Your task to perform on an android device: Open the calendar app, open the side menu, and click the "Day" option Image 0: 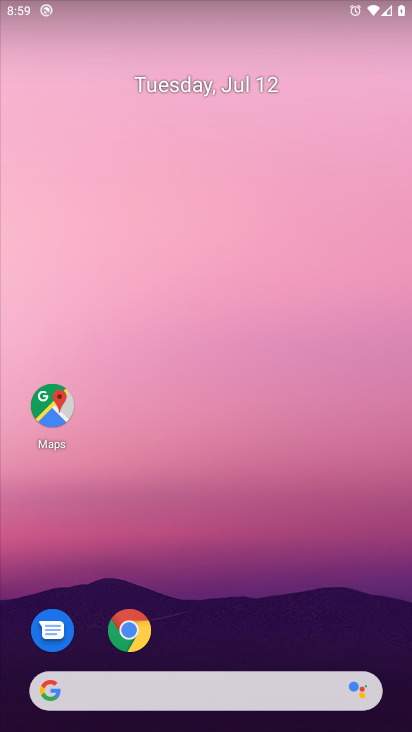
Step 0: press home button
Your task to perform on an android device: Open the calendar app, open the side menu, and click the "Day" option Image 1: 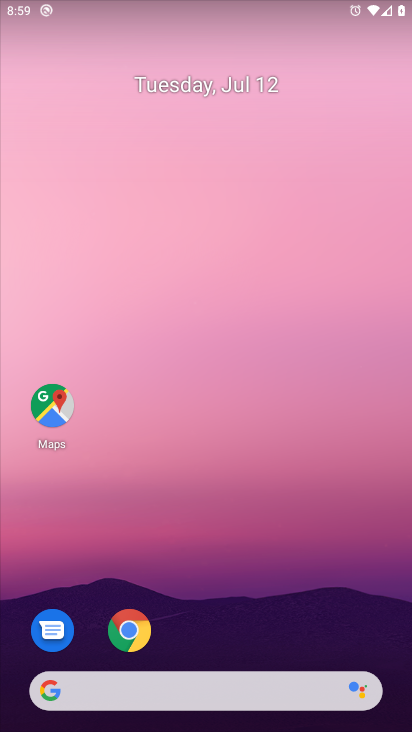
Step 1: drag from (229, 651) to (178, 183)
Your task to perform on an android device: Open the calendar app, open the side menu, and click the "Day" option Image 2: 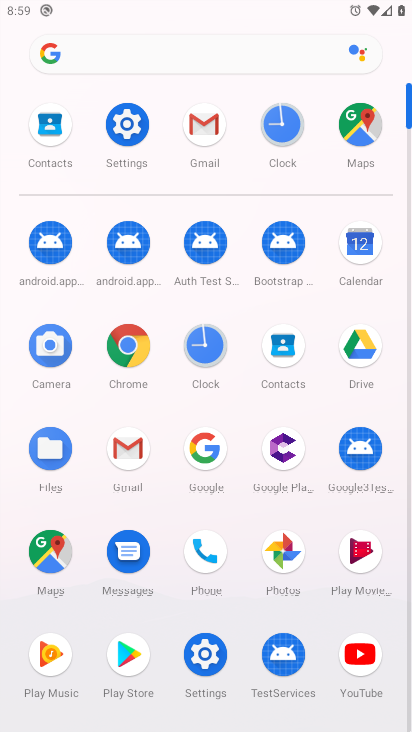
Step 2: click (354, 239)
Your task to perform on an android device: Open the calendar app, open the side menu, and click the "Day" option Image 3: 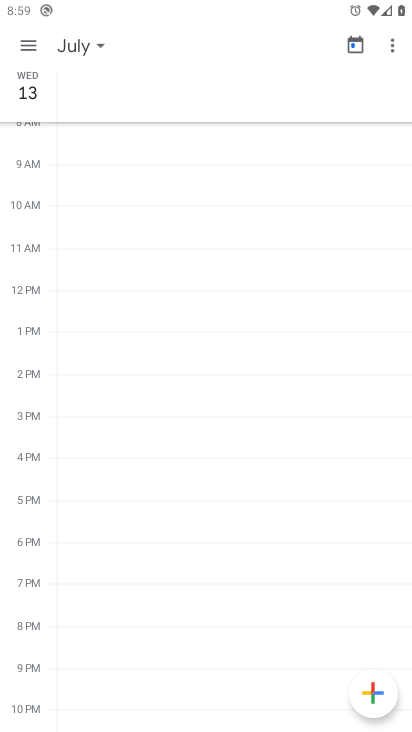
Step 3: click (25, 44)
Your task to perform on an android device: Open the calendar app, open the side menu, and click the "Day" option Image 4: 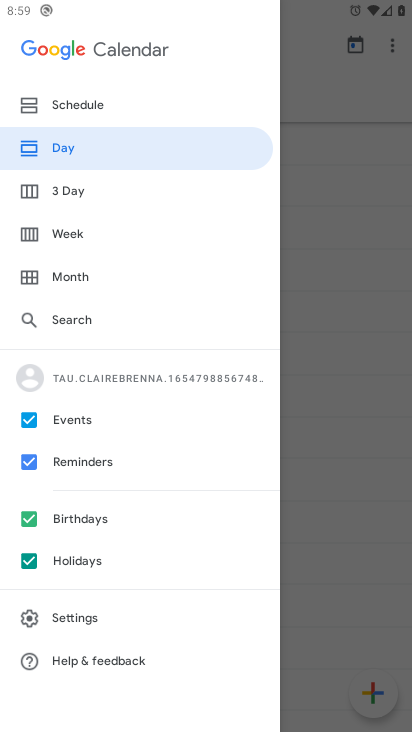
Step 4: click (82, 151)
Your task to perform on an android device: Open the calendar app, open the side menu, and click the "Day" option Image 5: 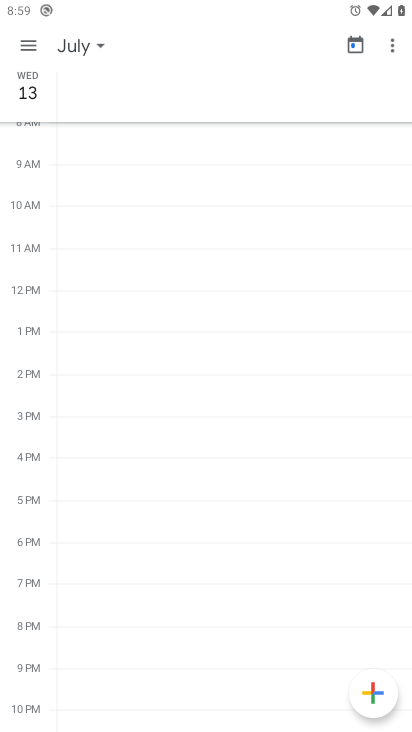
Step 5: task complete